Your task to perform on an android device: find snoozed emails in the gmail app Image 0: 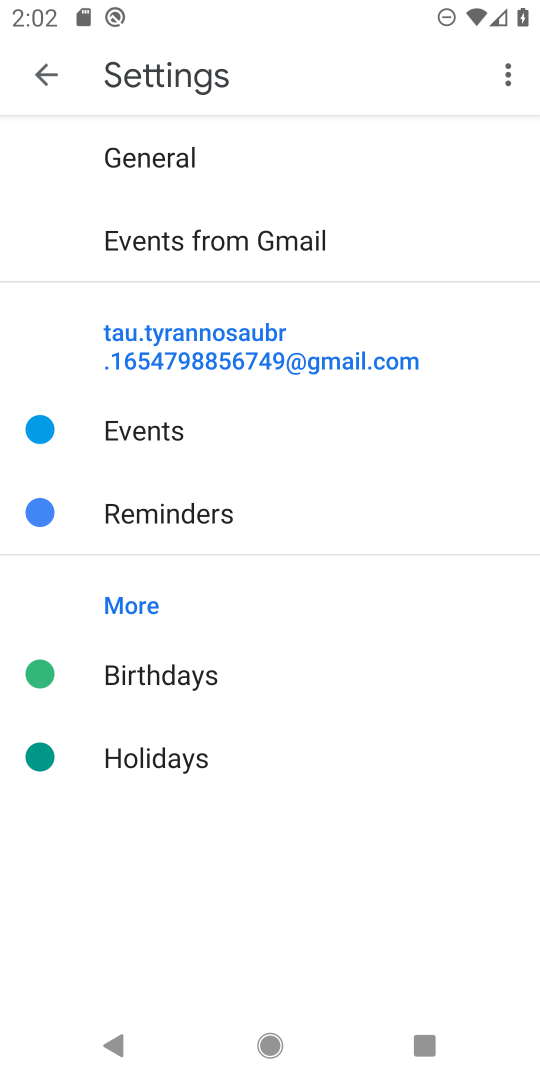
Step 0: task complete